Your task to perform on an android device: open app "HBO Max: Stream TV & Movies" Image 0: 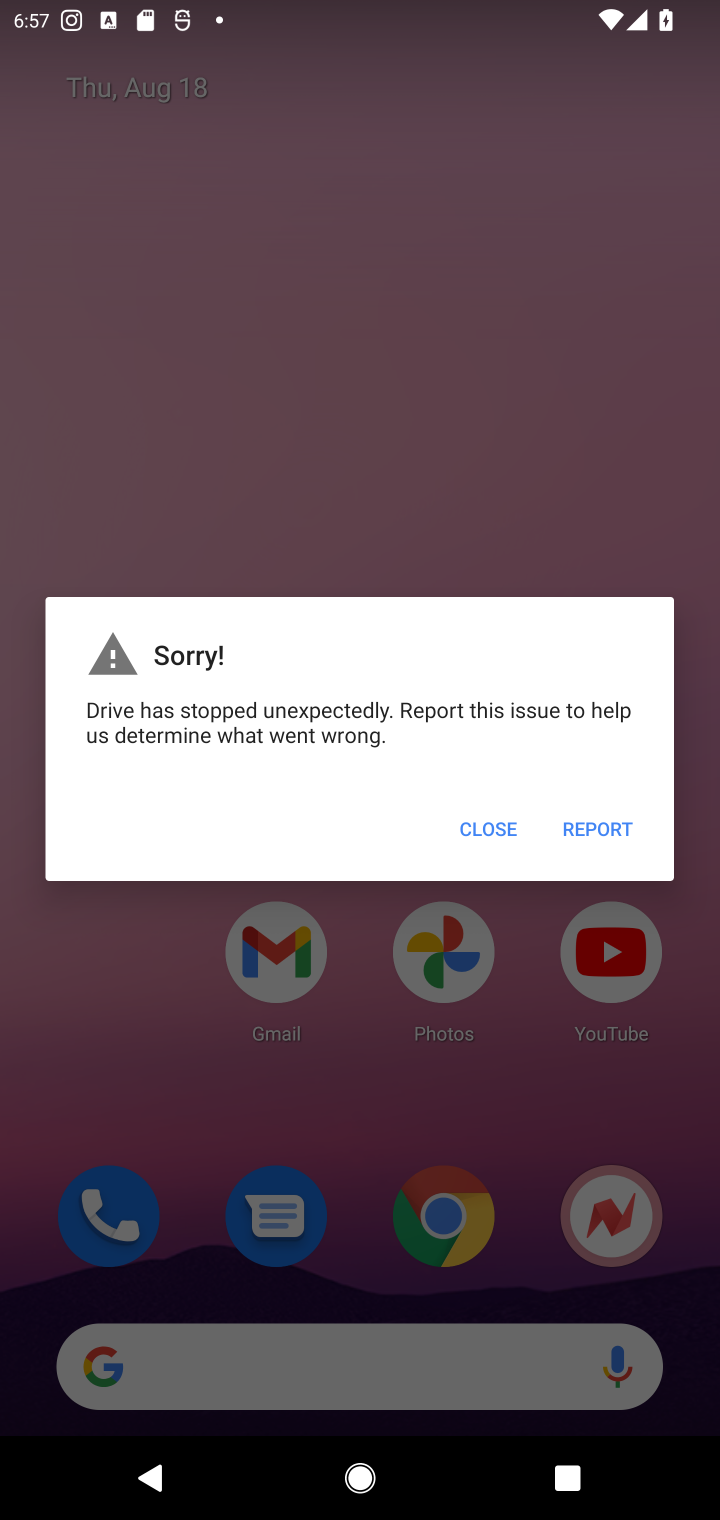
Step 0: click (499, 824)
Your task to perform on an android device: open app "HBO Max: Stream TV & Movies" Image 1: 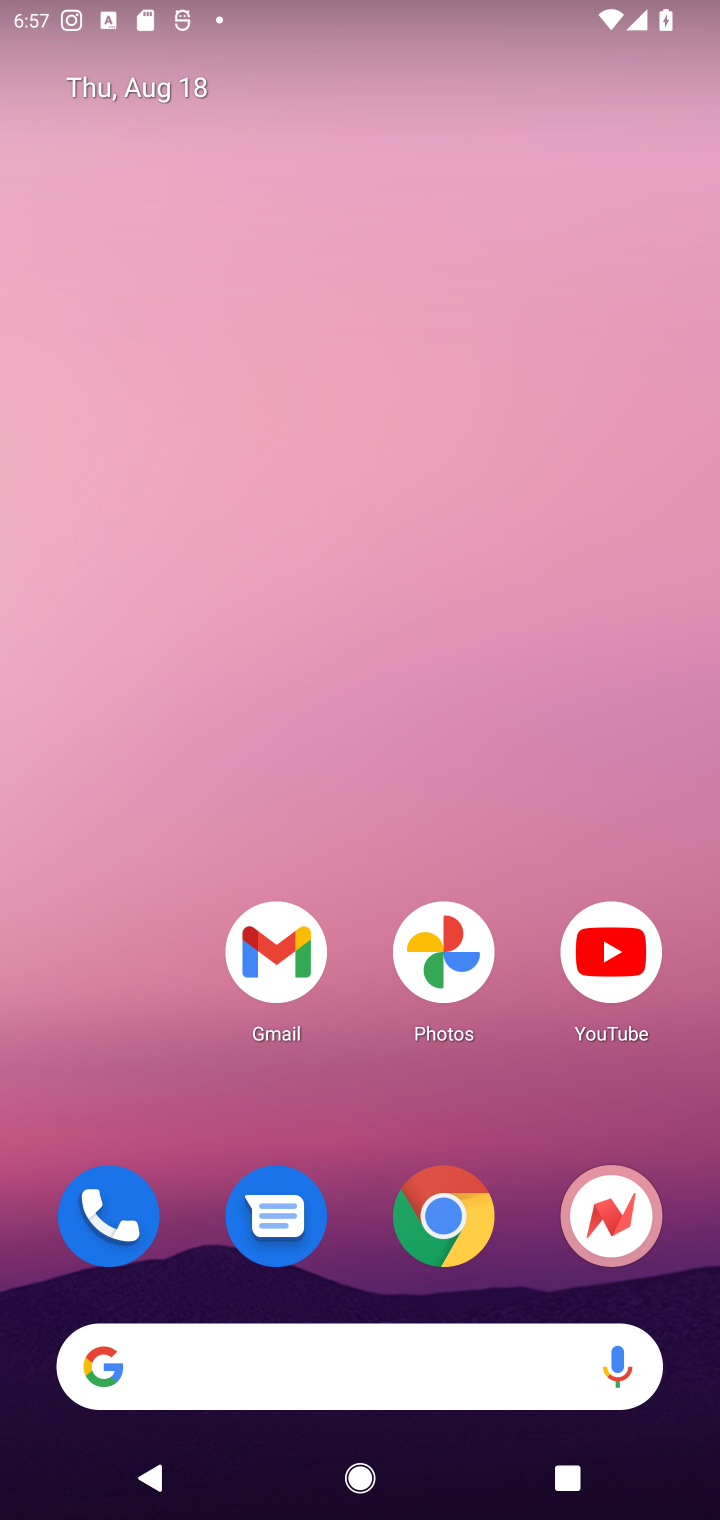
Step 1: drag from (330, 1120) to (348, 362)
Your task to perform on an android device: open app "HBO Max: Stream TV & Movies" Image 2: 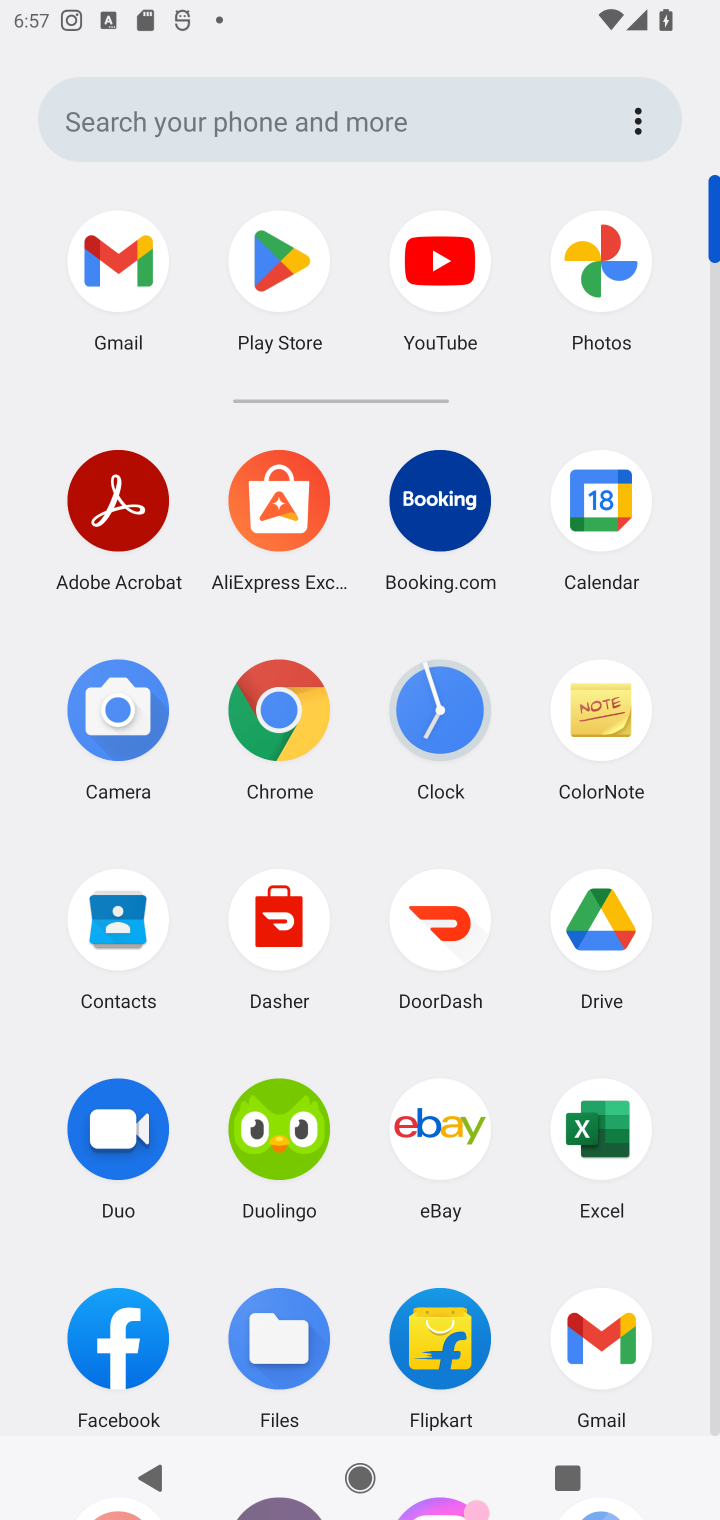
Step 2: click (266, 287)
Your task to perform on an android device: open app "HBO Max: Stream TV & Movies" Image 3: 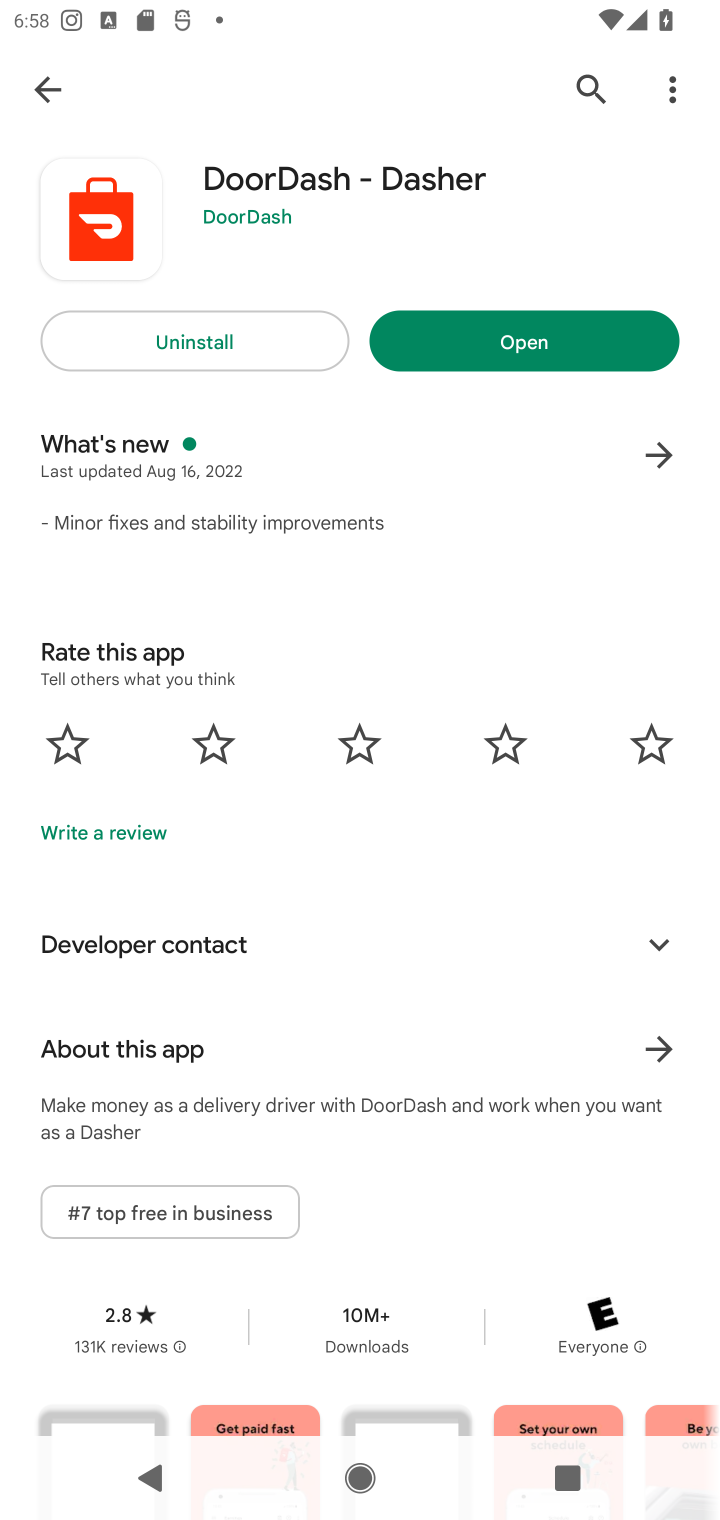
Step 3: click (595, 91)
Your task to perform on an android device: open app "HBO Max: Stream TV & Movies" Image 4: 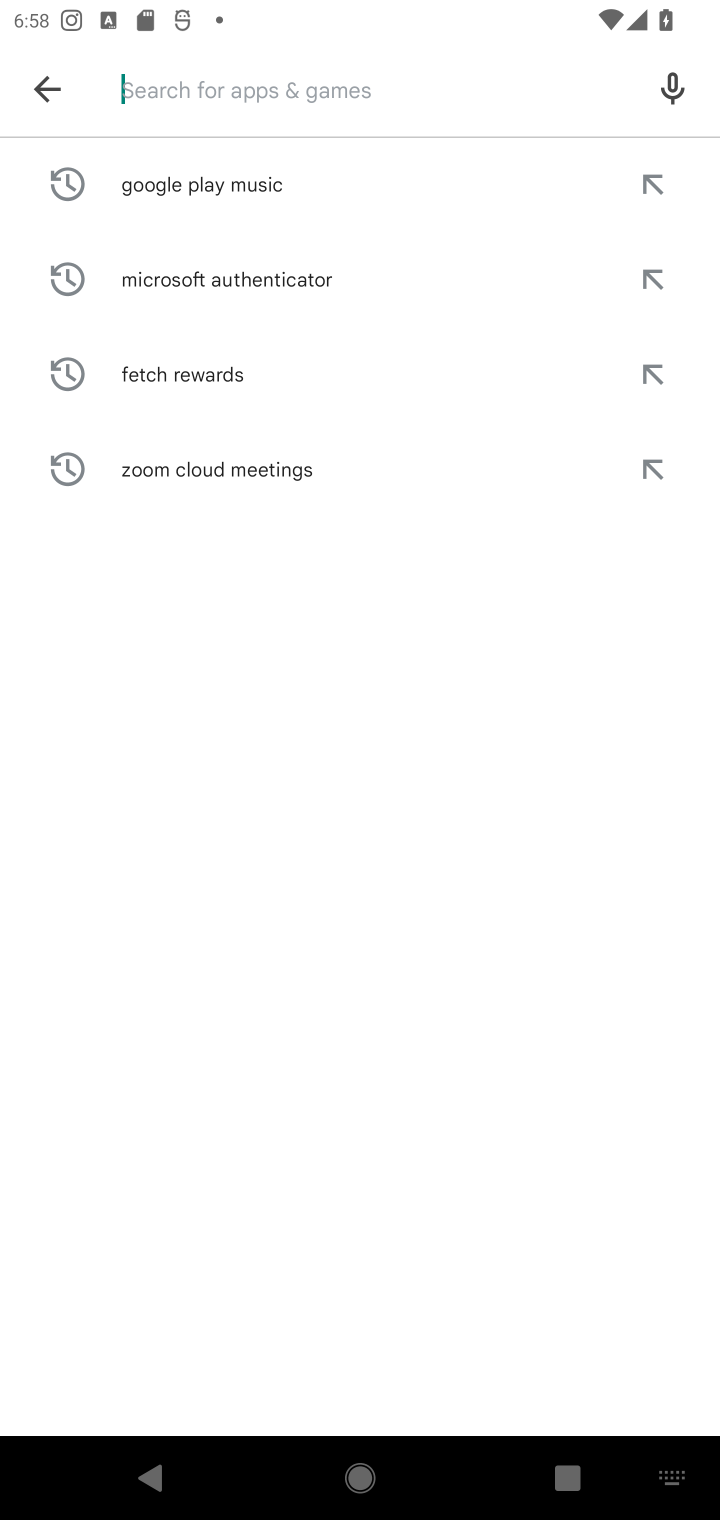
Step 4: type "HBO Max: Stream TV & Movies"
Your task to perform on an android device: open app "HBO Max: Stream TV & Movies" Image 5: 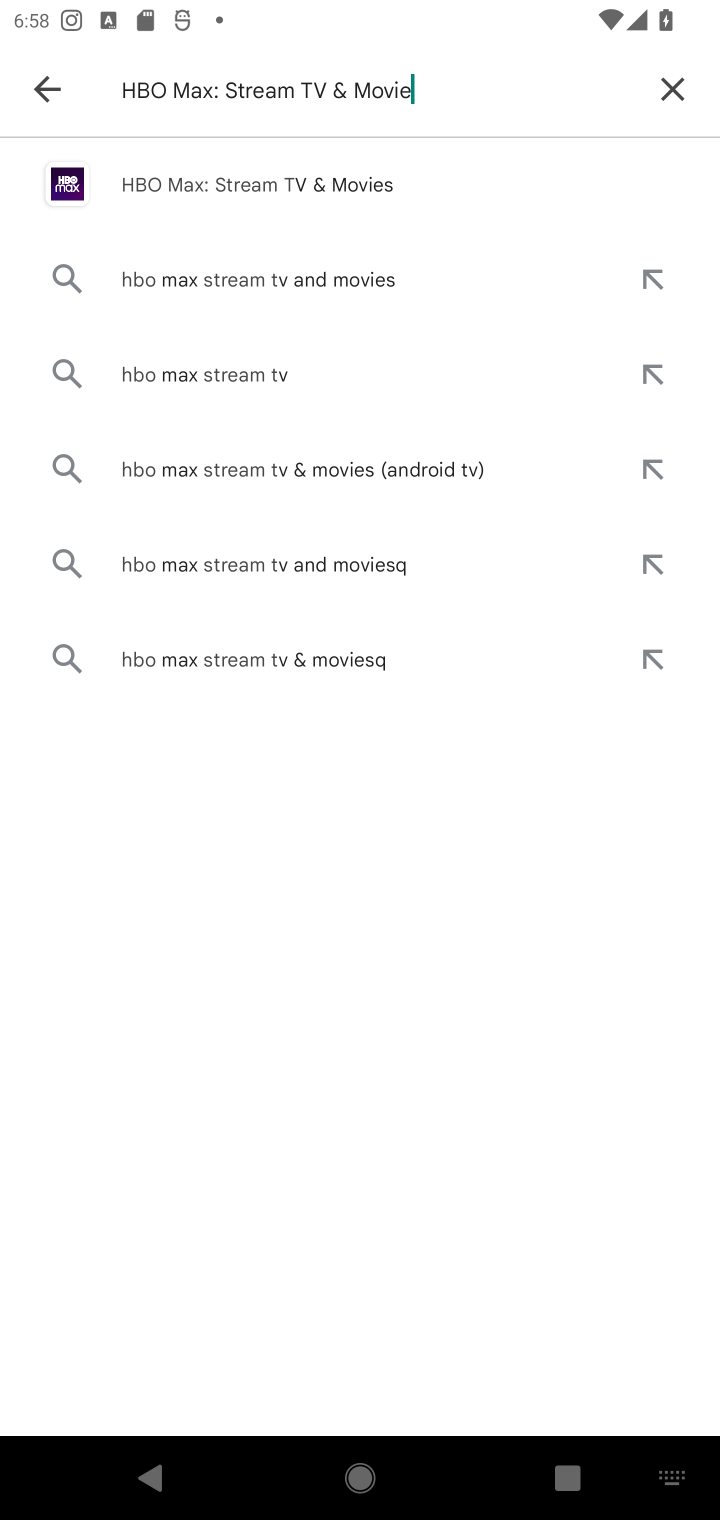
Step 5: type ""
Your task to perform on an android device: open app "HBO Max: Stream TV & Movies" Image 6: 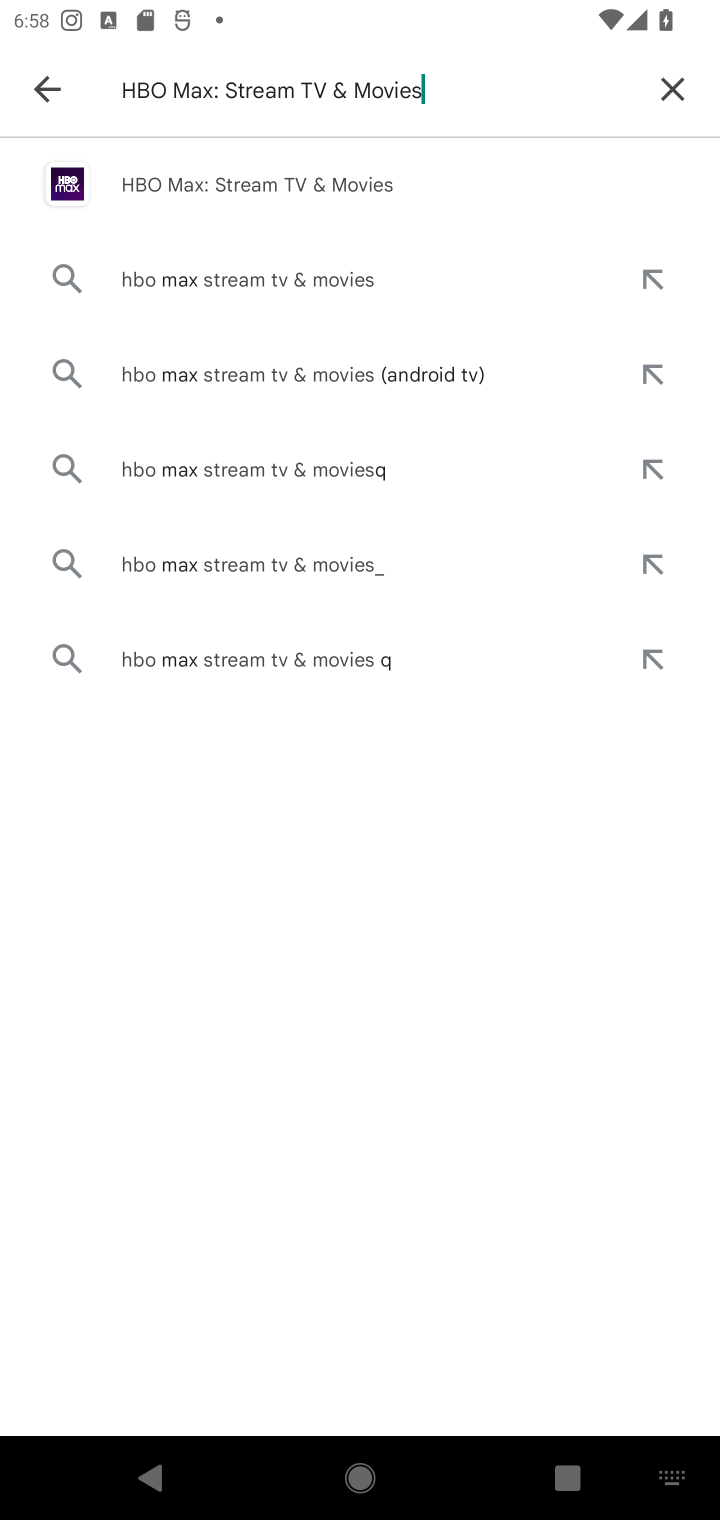
Step 6: click (318, 209)
Your task to perform on an android device: open app "HBO Max: Stream TV & Movies" Image 7: 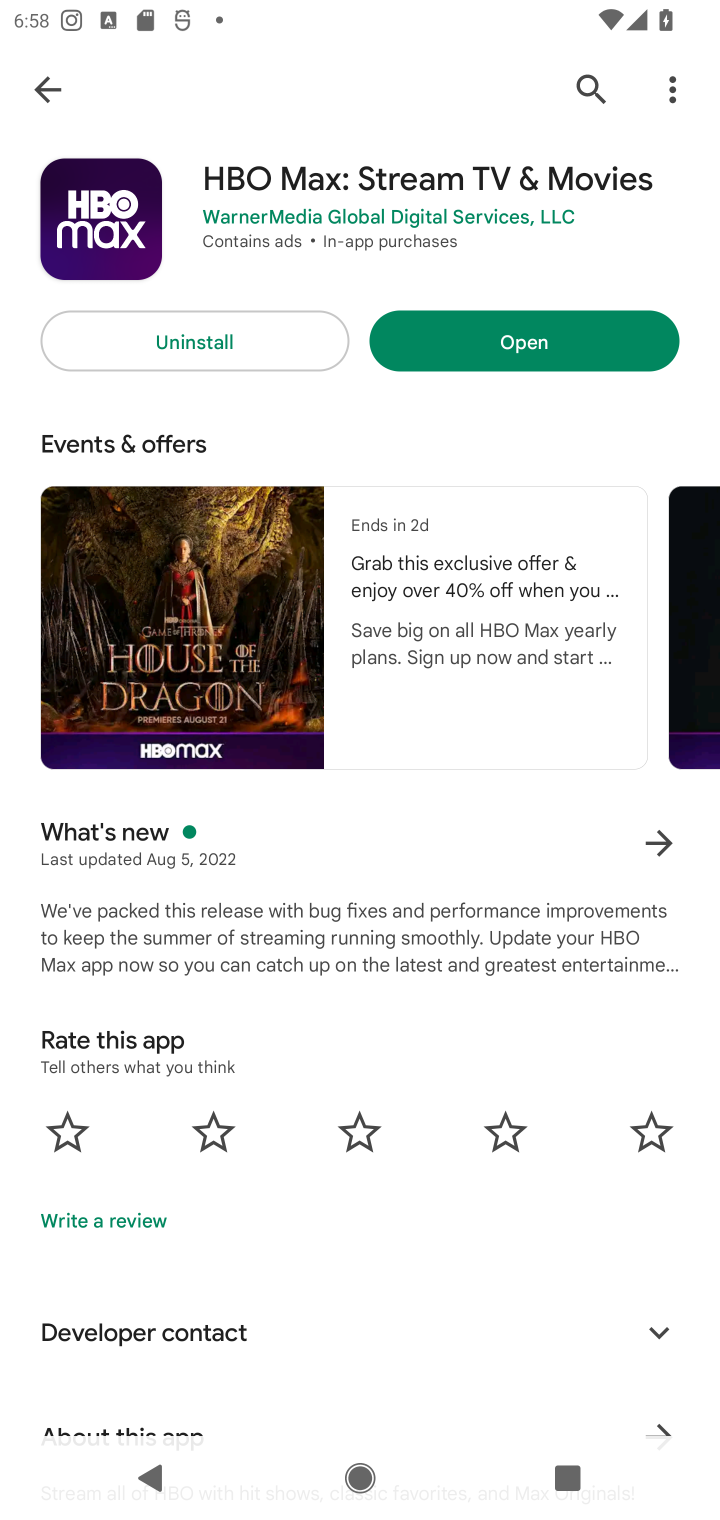
Step 7: click (575, 331)
Your task to perform on an android device: open app "HBO Max: Stream TV & Movies" Image 8: 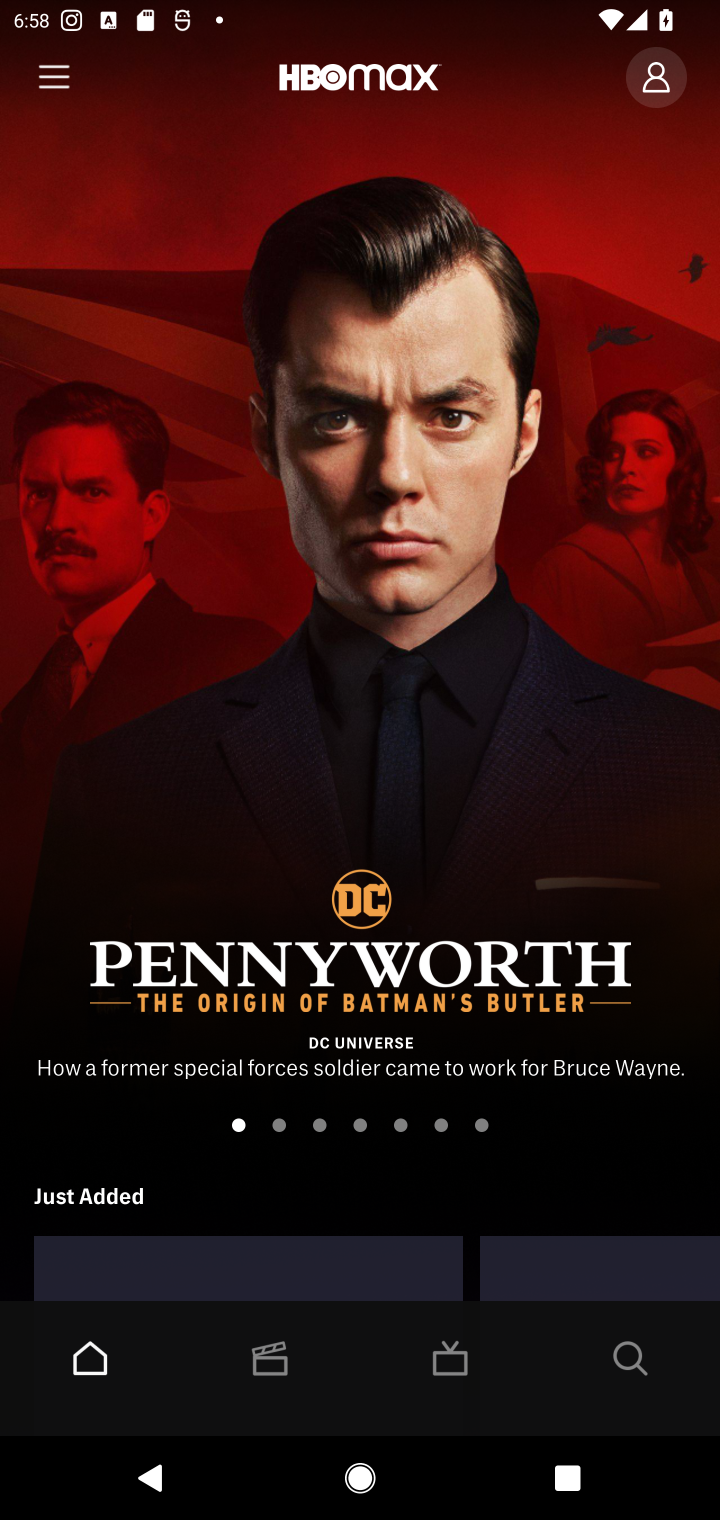
Step 8: task complete